Your task to perform on an android device: turn off sleep mode Image 0: 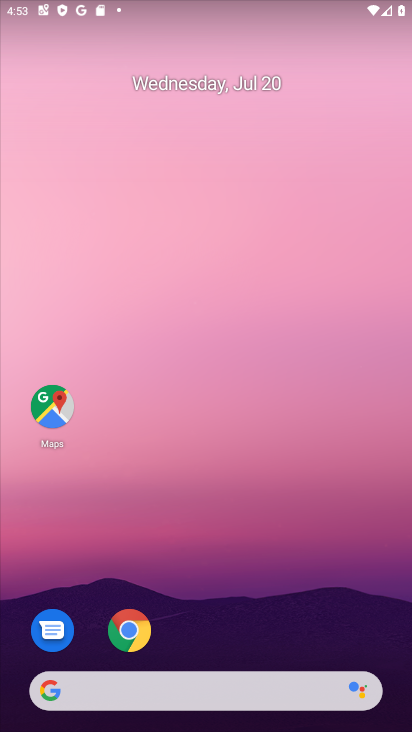
Step 0: drag from (200, 686) to (372, 70)
Your task to perform on an android device: turn off sleep mode Image 1: 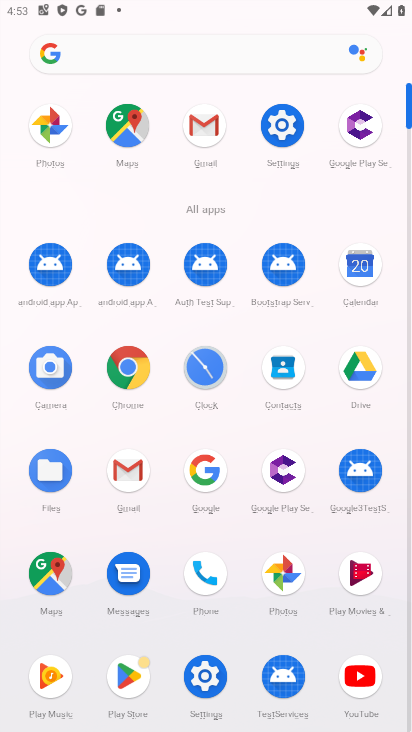
Step 1: click (282, 125)
Your task to perform on an android device: turn off sleep mode Image 2: 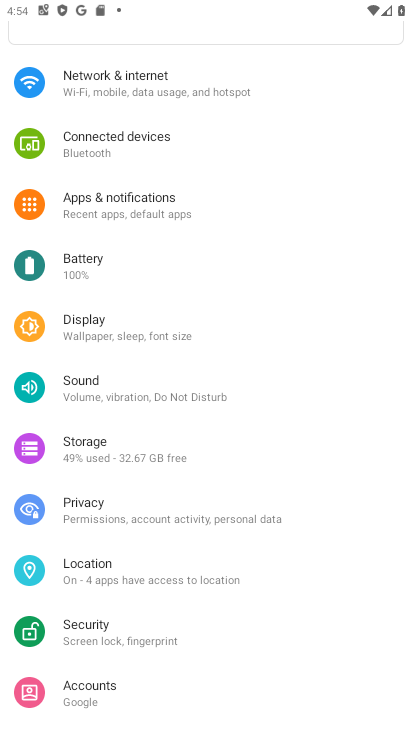
Step 2: click (102, 333)
Your task to perform on an android device: turn off sleep mode Image 3: 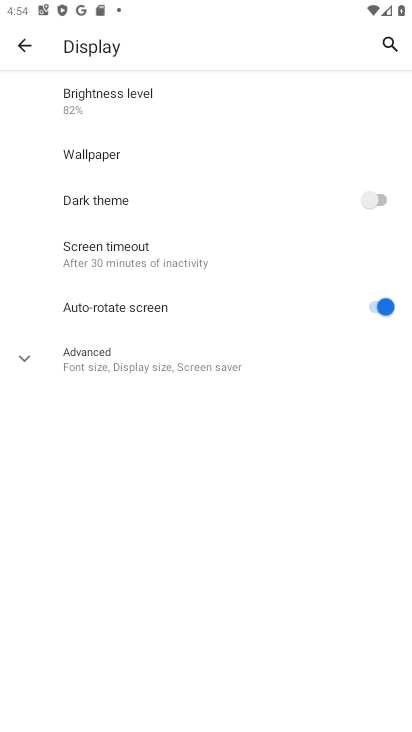
Step 3: click (234, 371)
Your task to perform on an android device: turn off sleep mode Image 4: 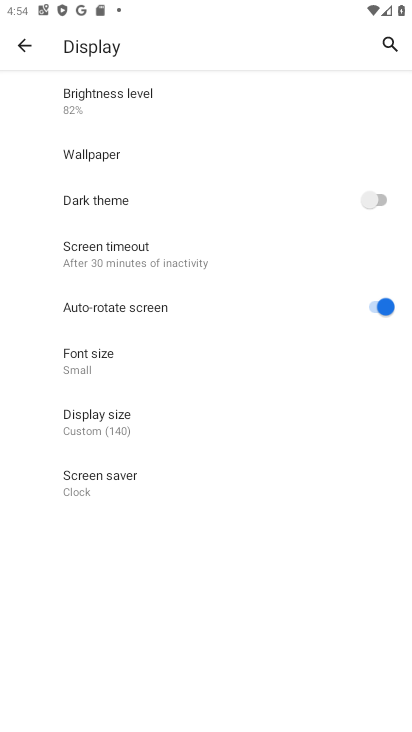
Step 4: task complete